Your task to perform on an android device: empty trash in google photos Image 0: 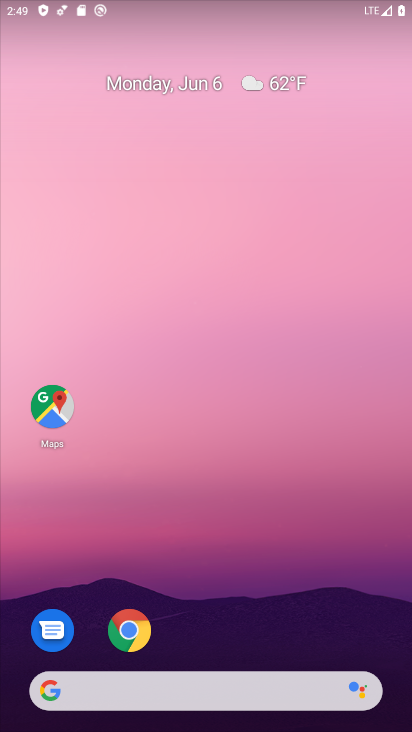
Step 0: drag from (195, 675) to (139, 1)
Your task to perform on an android device: empty trash in google photos Image 1: 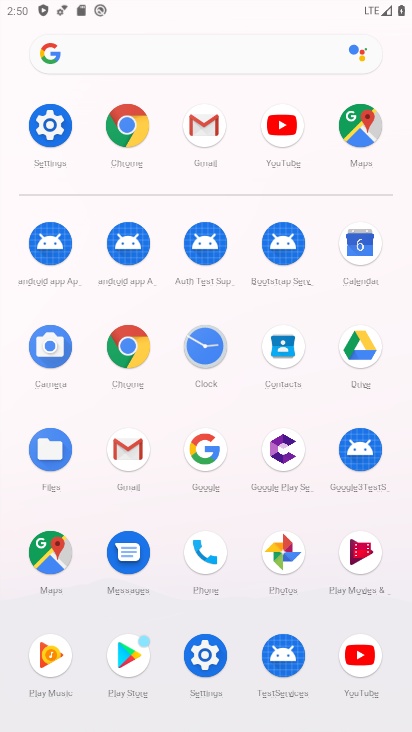
Step 1: click (282, 548)
Your task to perform on an android device: empty trash in google photos Image 2: 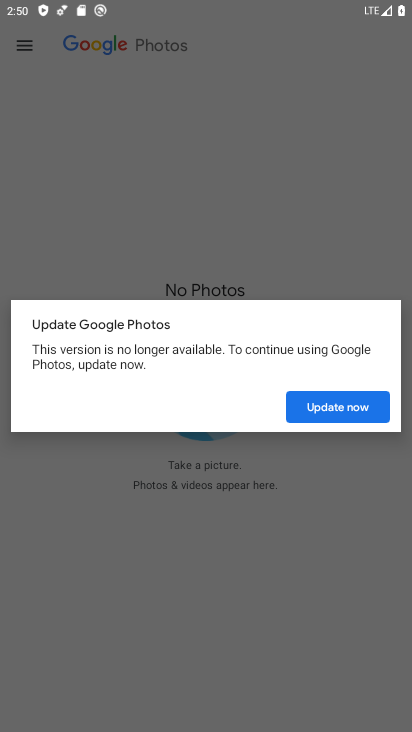
Step 2: click (309, 392)
Your task to perform on an android device: empty trash in google photos Image 3: 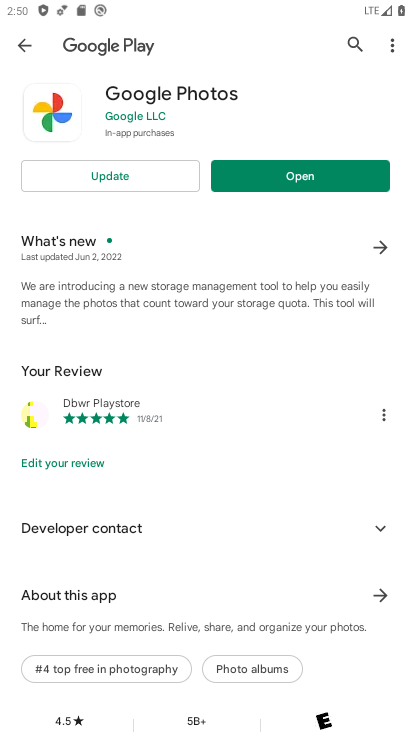
Step 3: click (122, 184)
Your task to perform on an android device: empty trash in google photos Image 4: 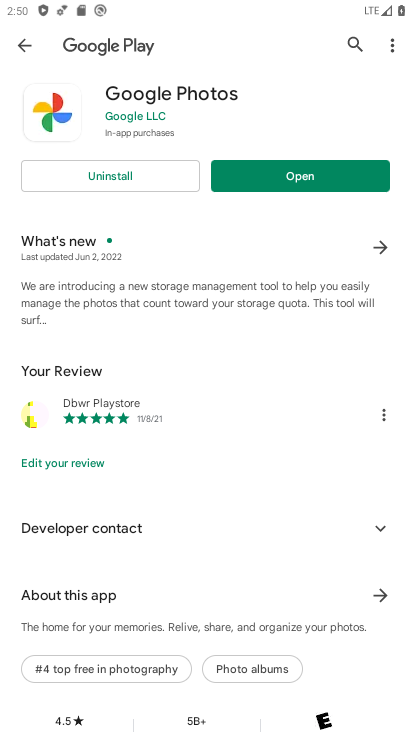
Step 4: click (289, 175)
Your task to perform on an android device: empty trash in google photos Image 5: 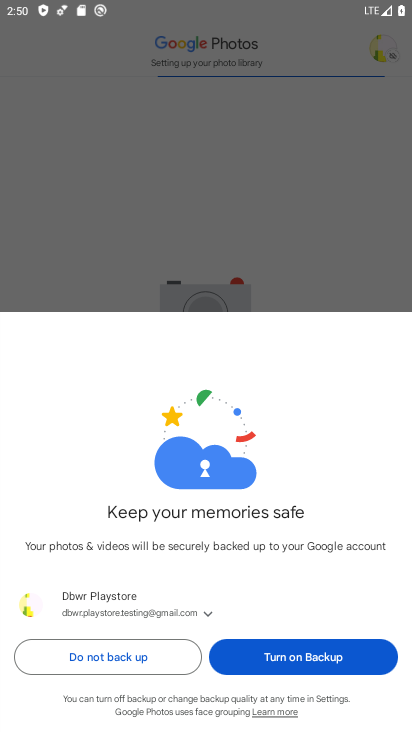
Step 5: click (285, 657)
Your task to perform on an android device: empty trash in google photos Image 6: 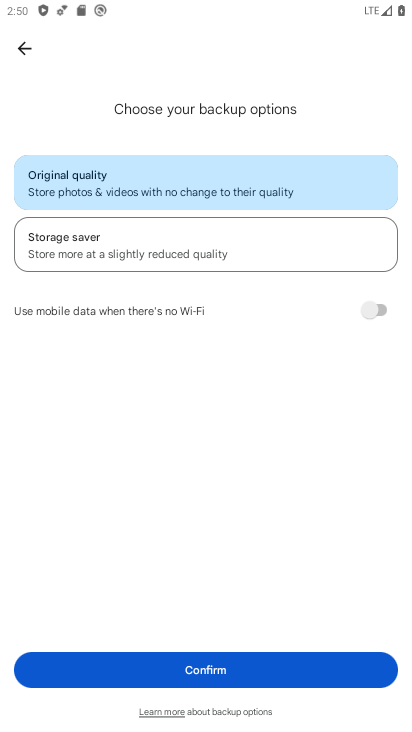
Step 6: click (281, 659)
Your task to perform on an android device: empty trash in google photos Image 7: 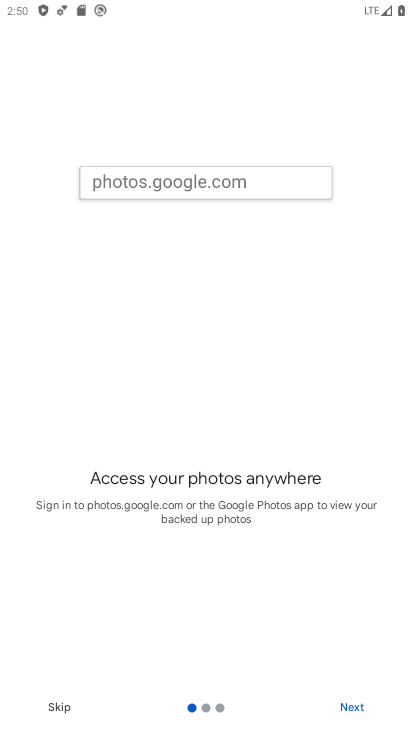
Step 7: click (360, 714)
Your task to perform on an android device: empty trash in google photos Image 8: 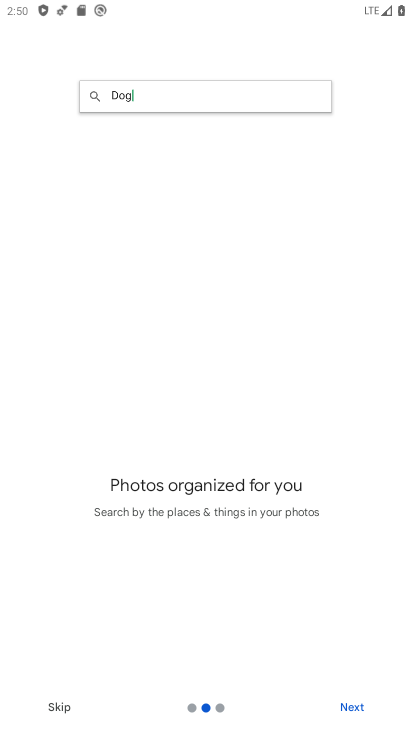
Step 8: click (366, 710)
Your task to perform on an android device: empty trash in google photos Image 9: 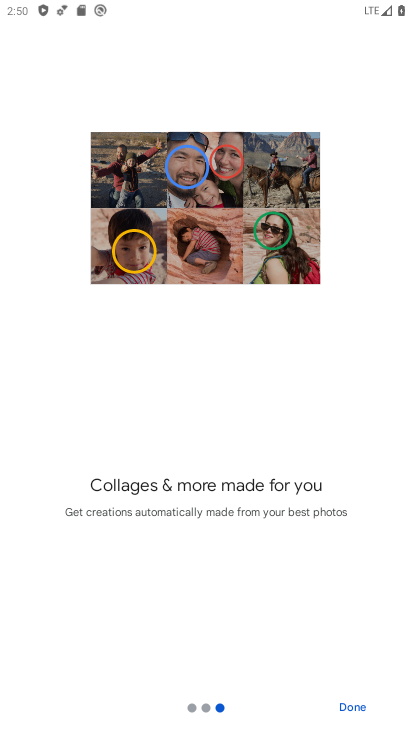
Step 9: click (366, 710)
Your task to perform on an android device: empty trash in google photos Image 10: 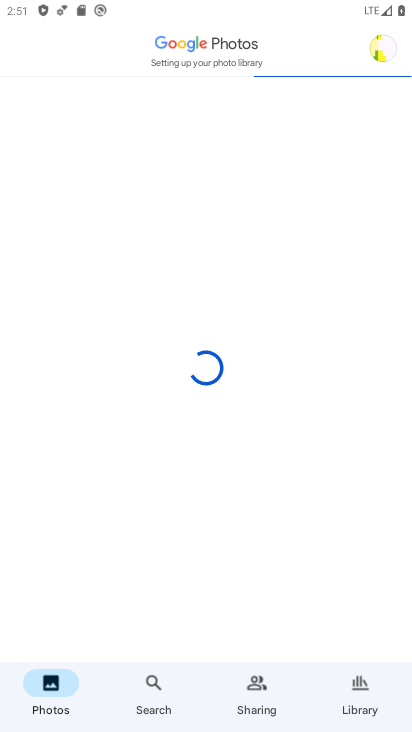
Step 10: click (387, 42)
Your task to perform on an android device: empty trash in google photos Image 11: 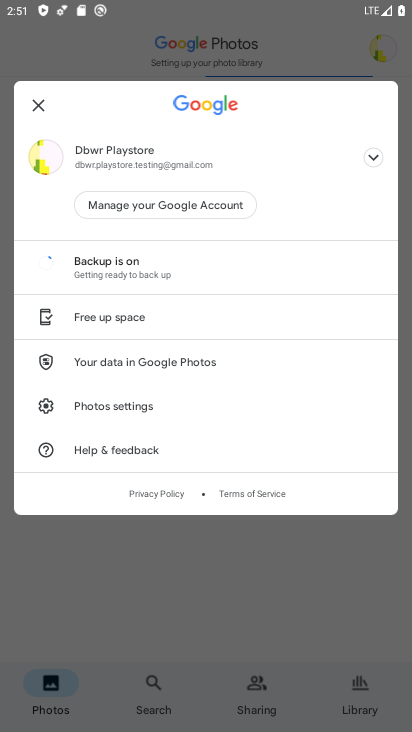
Step 11: click (227, 583)
Your task to perform on an android device: empty trash in google photos Image 12: 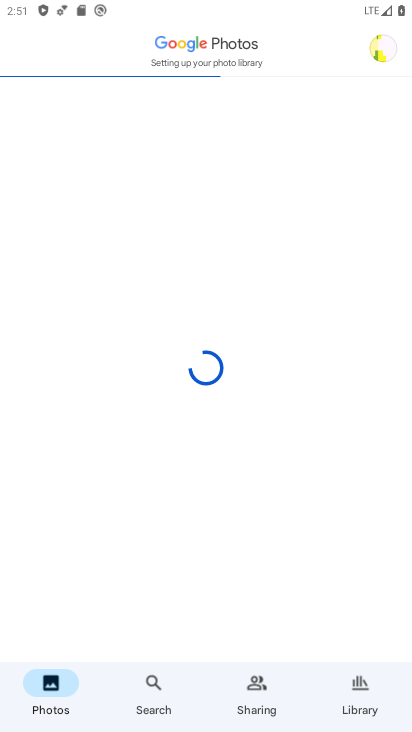
Step 12: click (369, 705)
Your task to perform on an android device: empty trash in google photos Image 13: 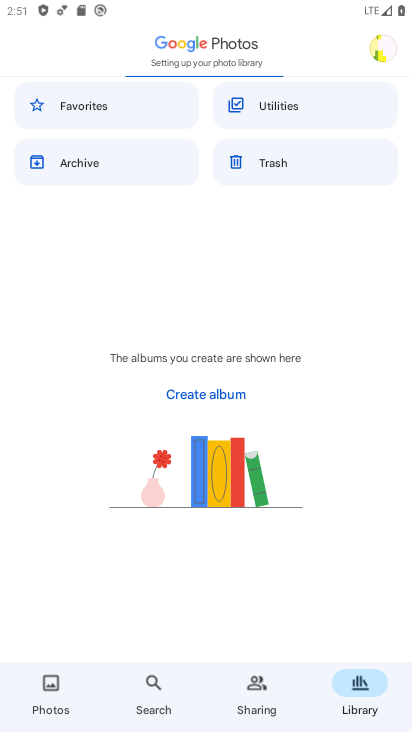
Step 13: click (300, 166)
Your task to perform on an android device: empty trash in google photos Image 14: 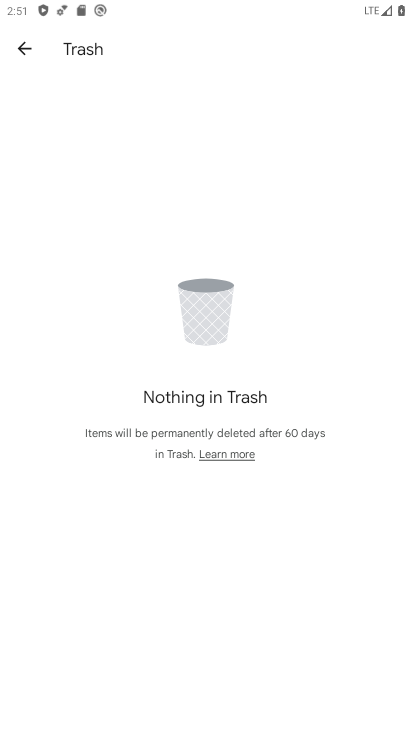
Step 14: task complete